Your task to perform on an android device: Add "duracell triple a" to the cart on bestbuy.com, then select checkout. Image 0: 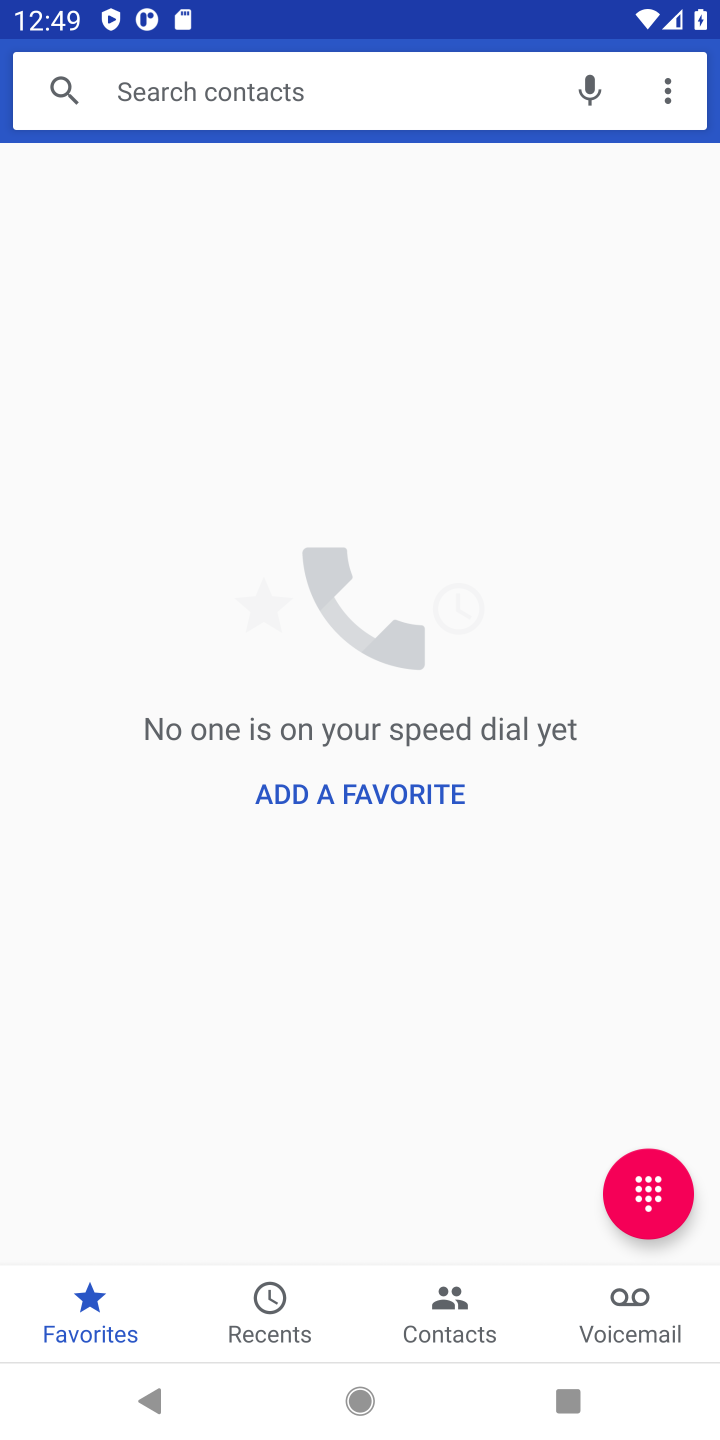
Step 0: press home button
Your task to perform on an android device: Add "duracell triple a" to the cart on bestbuy.com, then select checkout. Image 1: 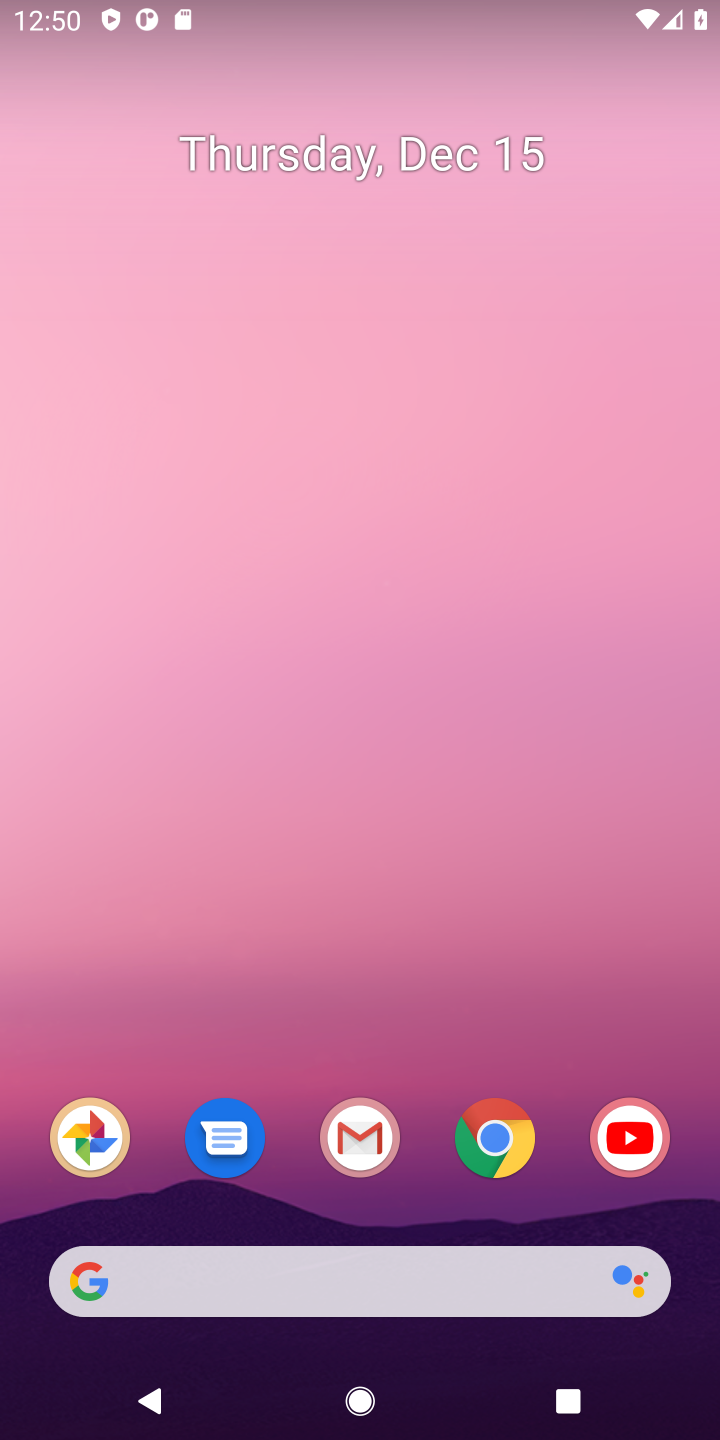
Step 1: click (493, 1149)
Your task to perform on an android device: Add "duracell triple a" to the cart on bestbuy.com, then select checkout. Image 2: 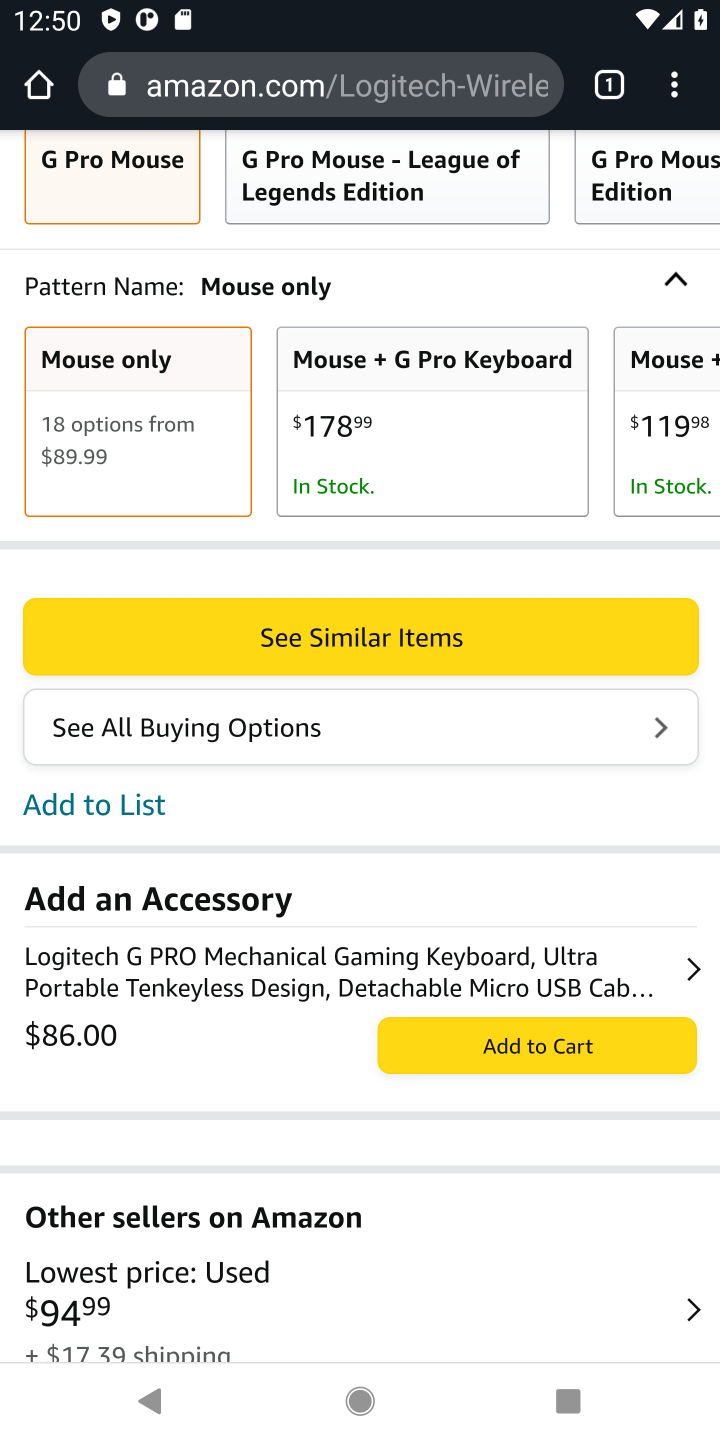
Step 2: click (214, 96)
Your task to perform on an android device: Add "duracell triple a" to the cart on bestbuy.com, then select checkout. Image 3: 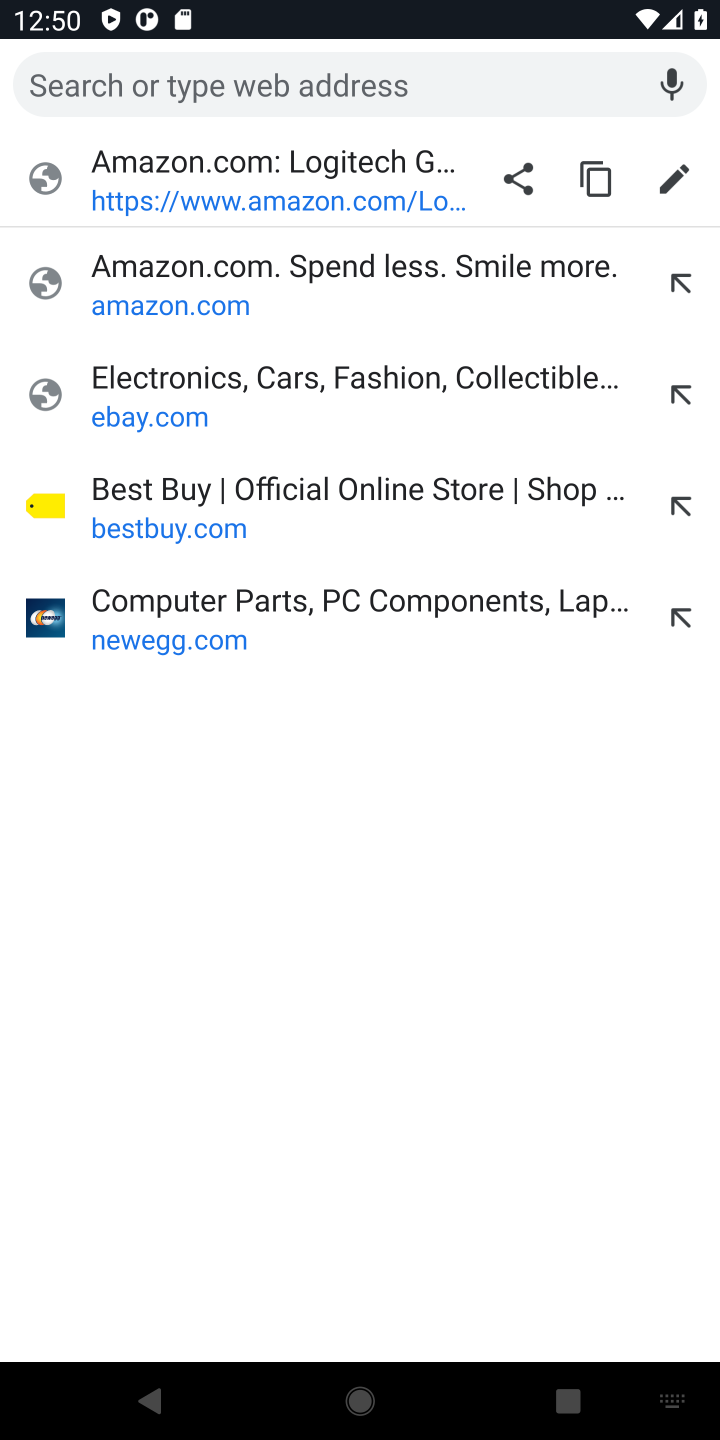
Step 3: type "bestbuy.com"
Your task to perform on an android device: Add "duracell triple a" to the cart on bestbuy.com, then select checkout. Image 4: 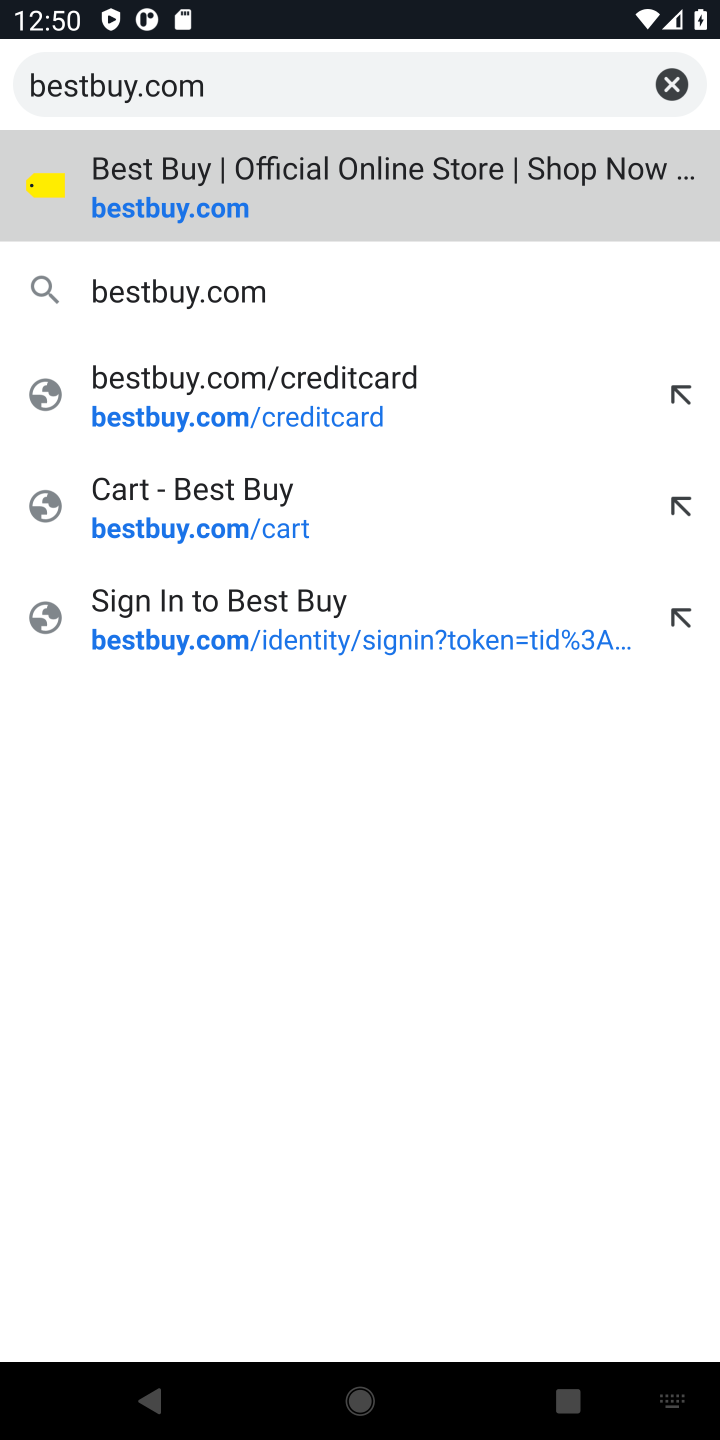
Step 4: click (287, 193)
Your task to perform on an android device: Add "duracell triple a" to the cart on bestbuy.com, then select checkout. Image 5: 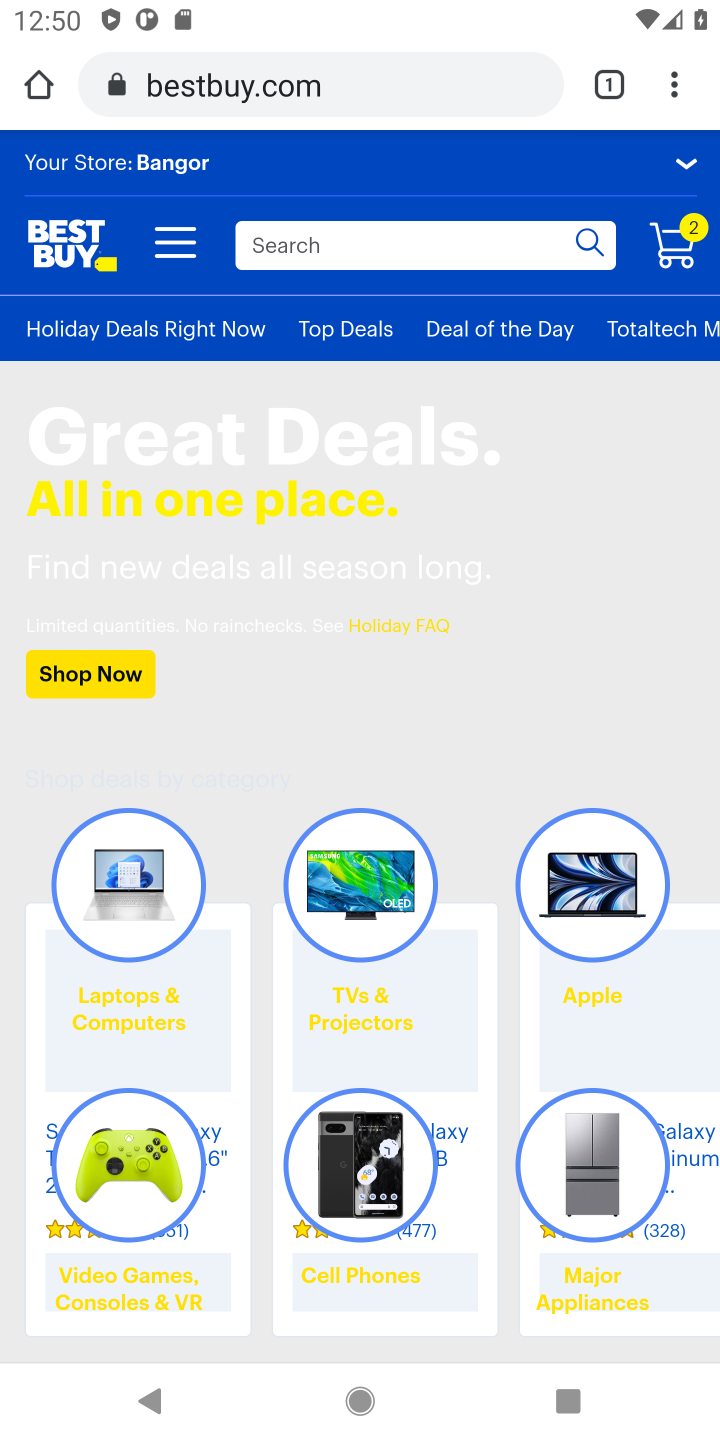
Step 5: click (486, 250)
Your task to perform on an android device: Add "duracell triple a" to the cart on bestbuy.com, then select checkout. Image 6: 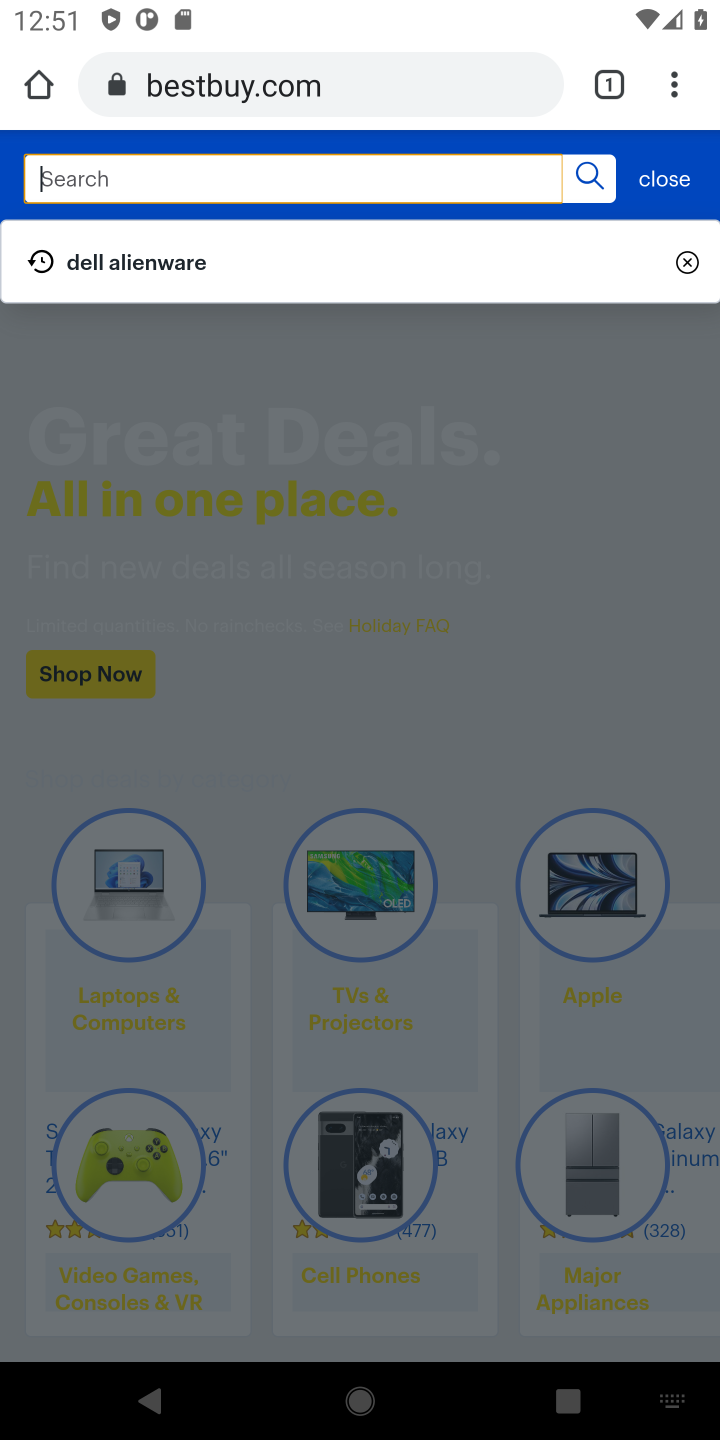
Step 6: type "duracell triple a"
Your task to perform on an android device: Add "duracell triple a" to the cart on bestbuy.com, then select checkout. Image 7: 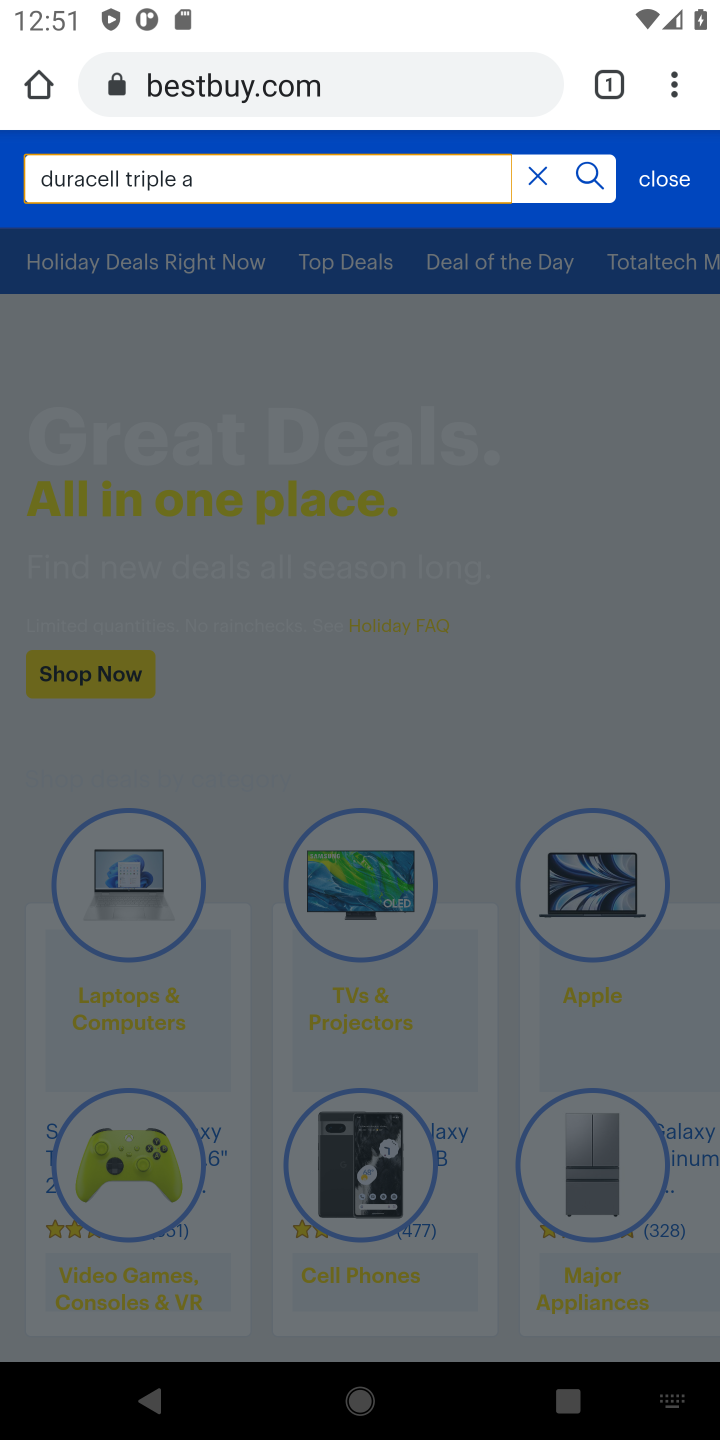
Step 7: click (584, 172)
Your task to perform on an android device: Add "duracell triple a" to the cart on bestbuy.com, then select checkout. Image 8: 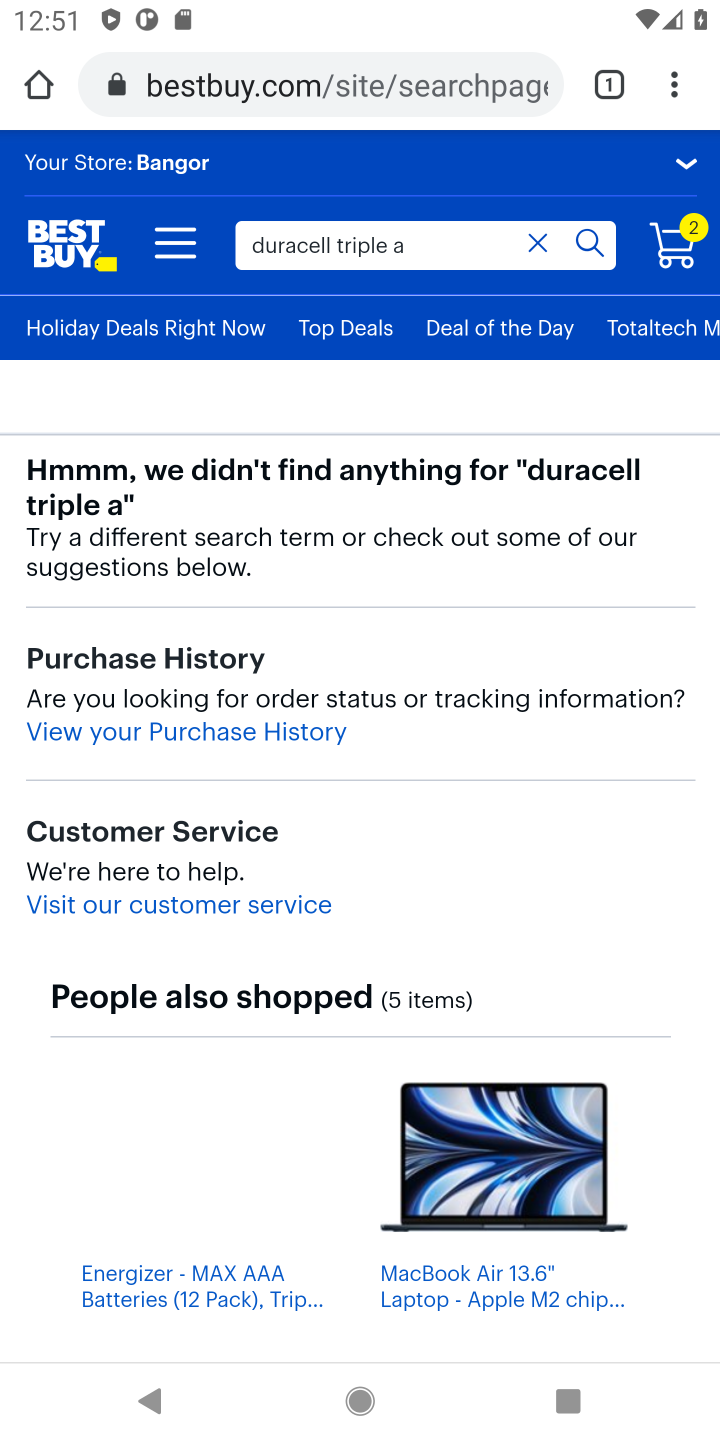
Step 8: task complete